Your task to perform on an android device: Open maps Image 0: 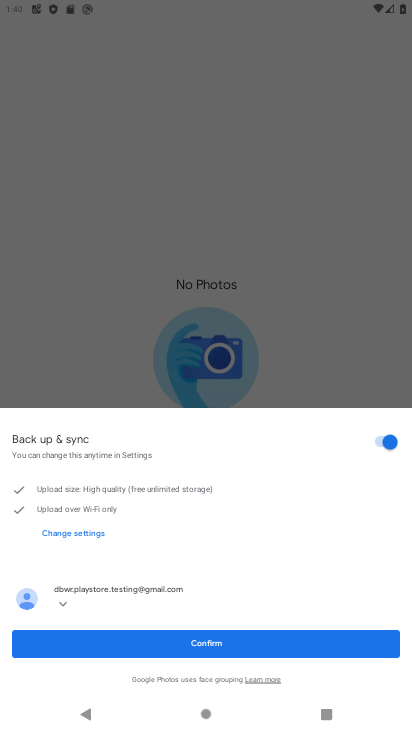
Step 0: press home button
Your task to perform on an android device: Open maps Image 1: 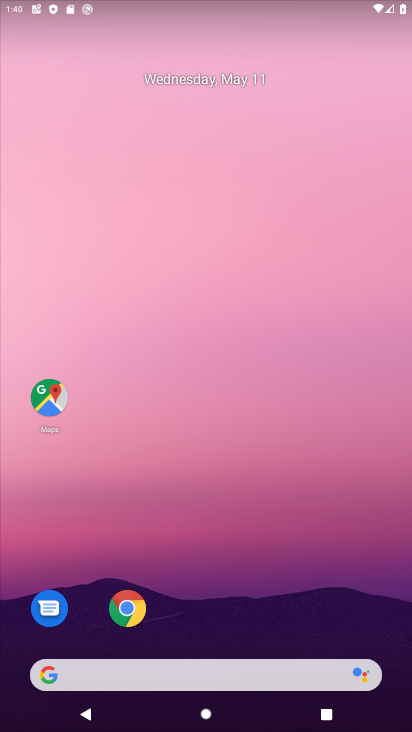
Step 1: click (63, 388)
Your task to perform on an android device: Open maps Image 2: 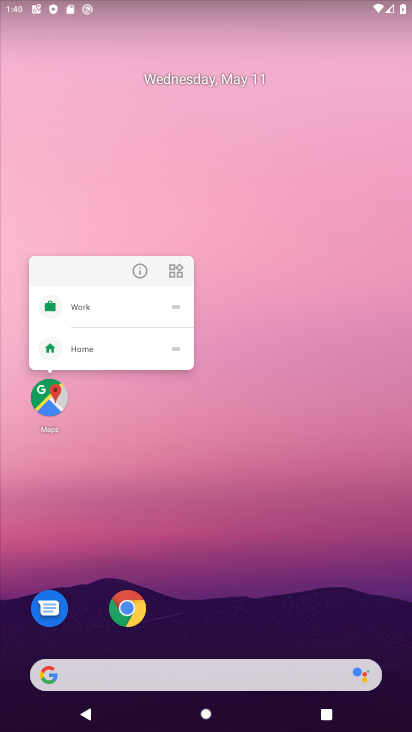
Step 2: click (63, 388)
Your task to perform on an android device: Open maps Image 3: 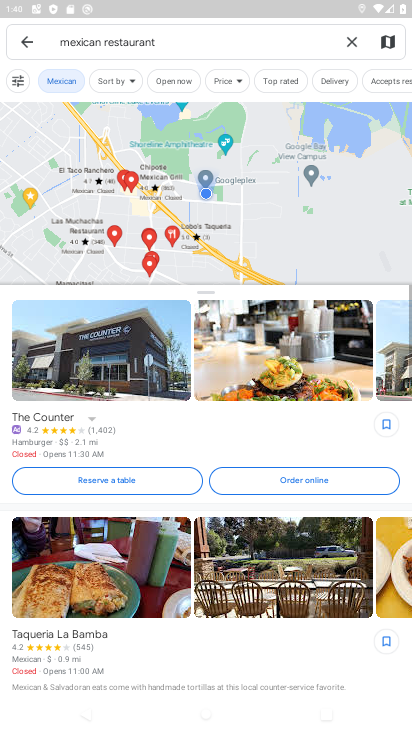
Step 3: task complete